Your task to perform on an android device: see tabs open on other devices in the chrome app Image 0: 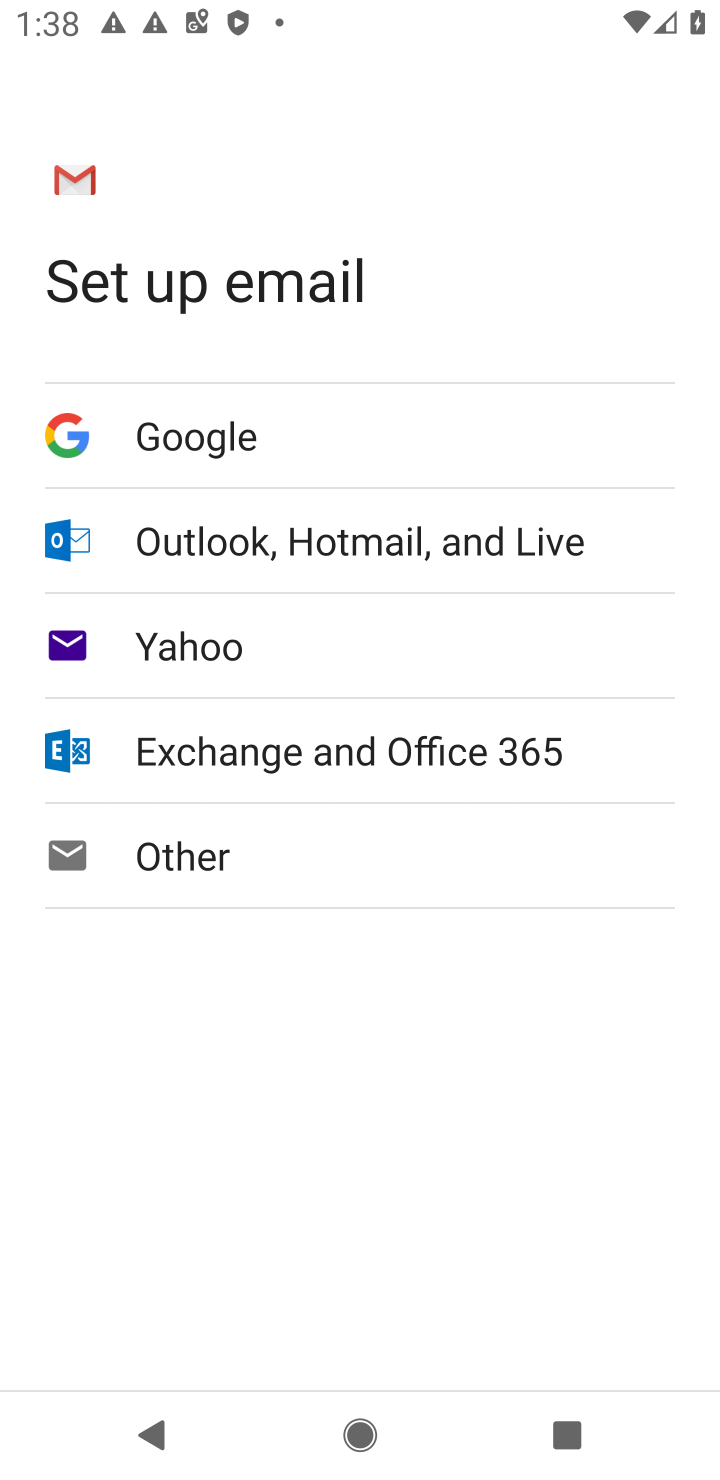
Step 0: press home button
Your task to perform on an android device: see tabs open on other devices in the chrome app Image 1: 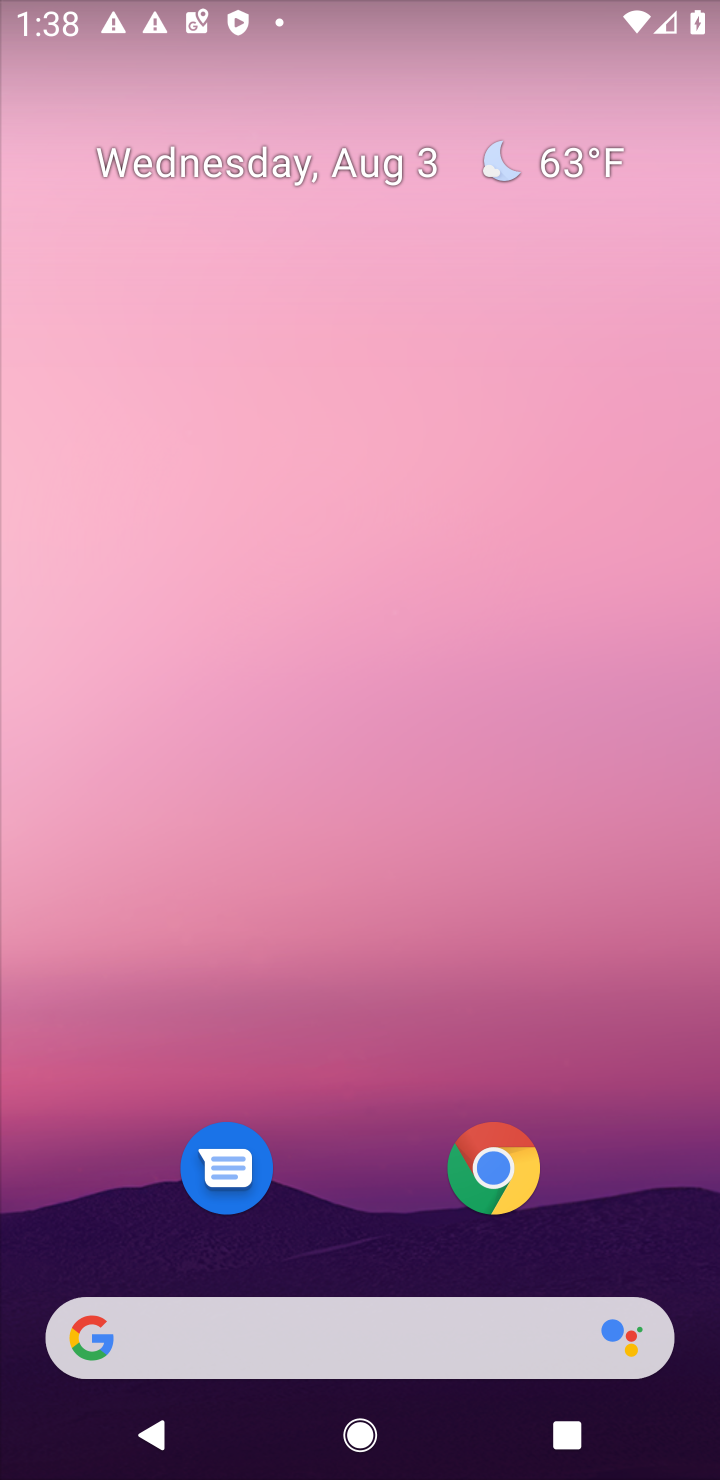
Step 1: click (493, 1170)
Your task to perform on an android device: see tabs open on other devices in the chrome app Image 2: 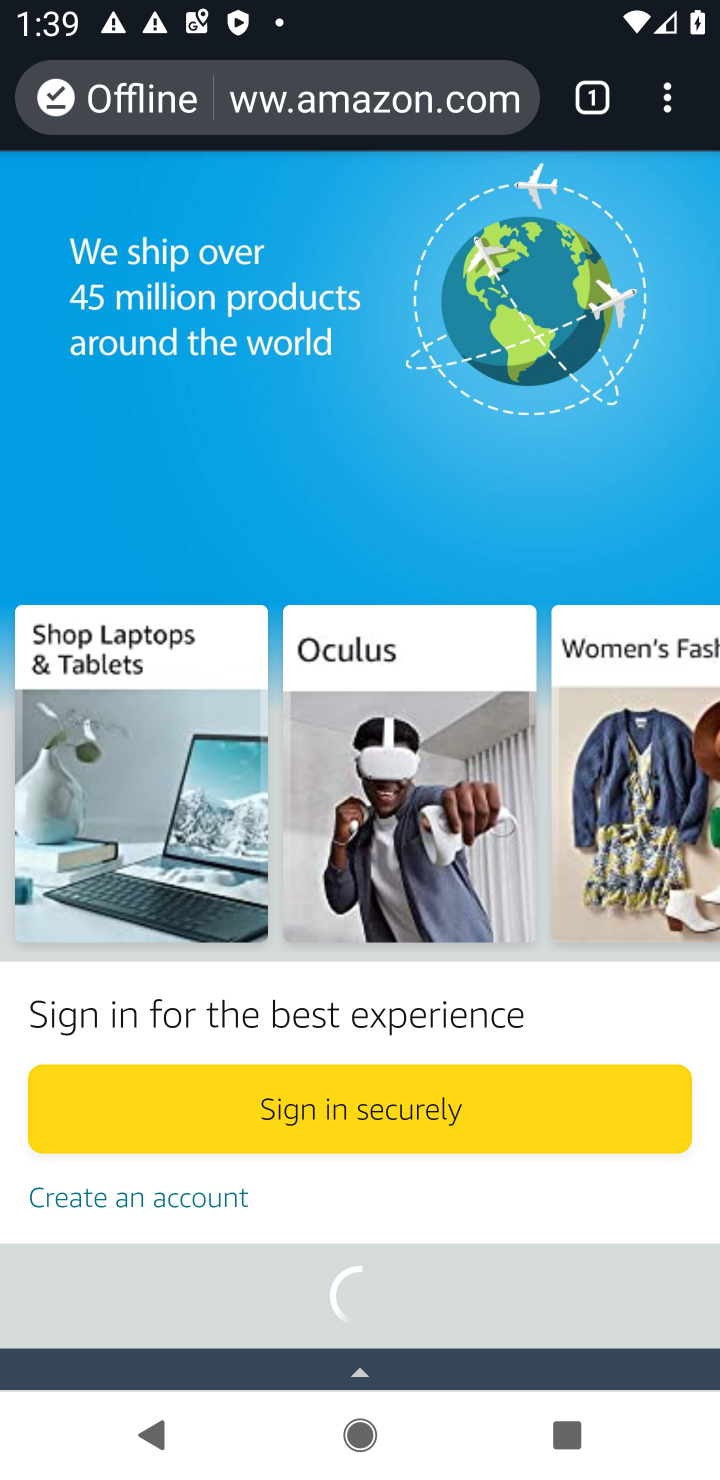
Step 2: click (663, 118)
Your task to perform on an android device: see tabs open on other devices in the chrome app Image 3: 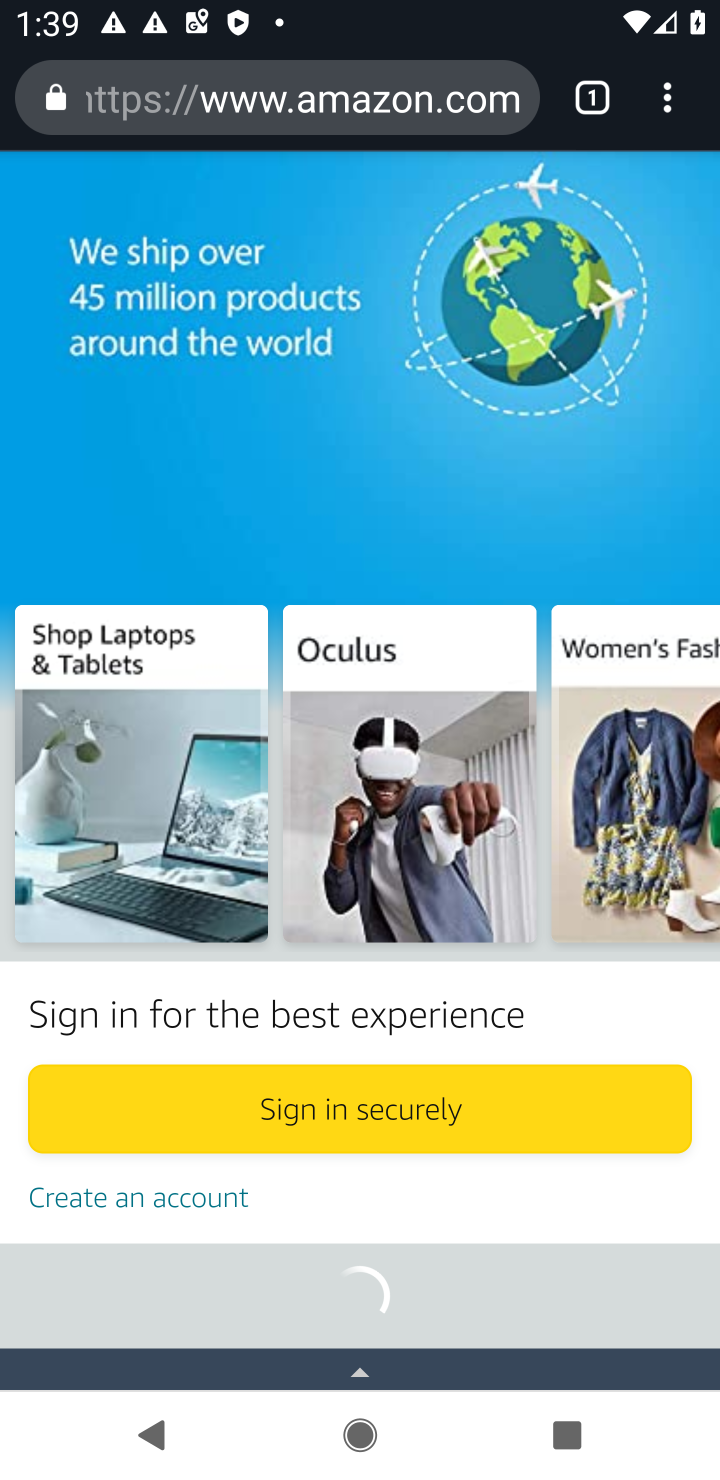
Step 3: click (661, 122)
Your task to perform on an android device: see tabs open on other devices in the chrome app Image 4: 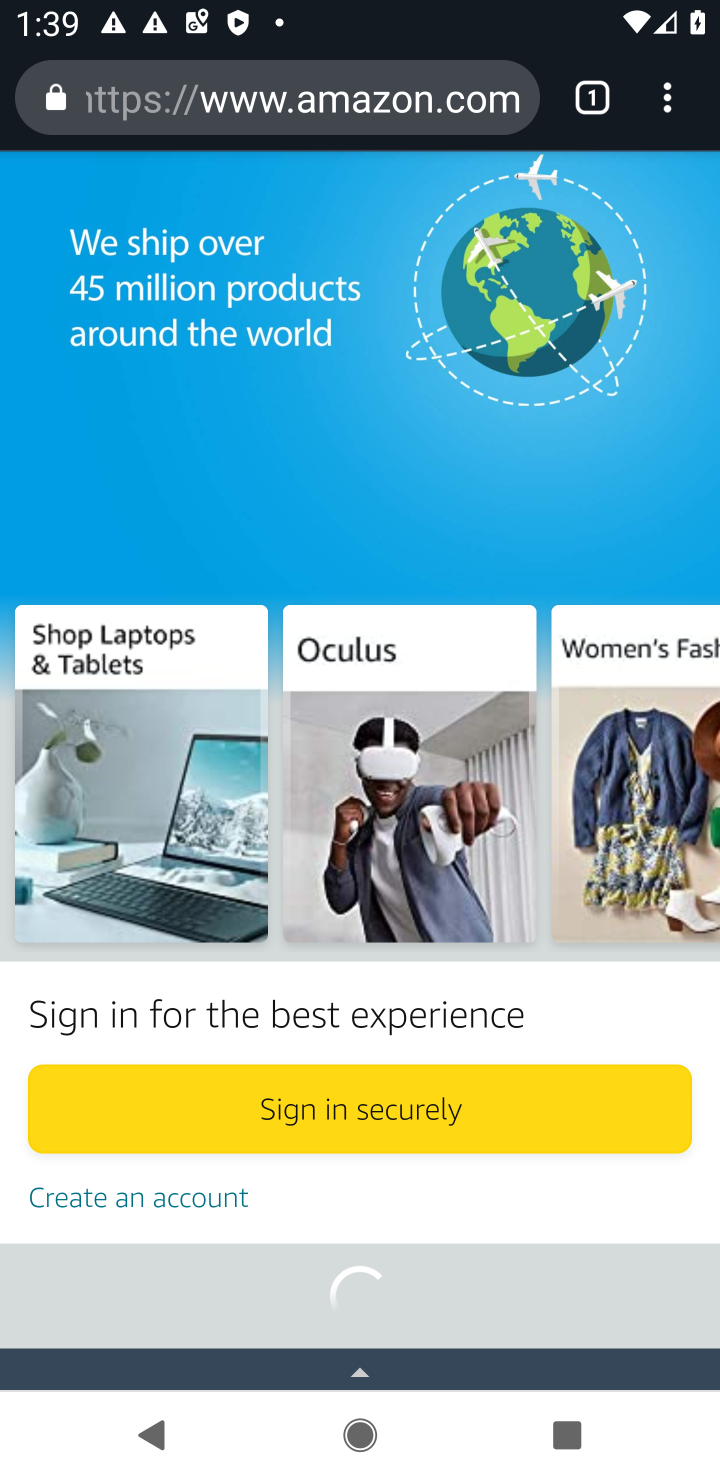
Step 4: task complete